Your task to perform on an android device: turn on airplane mode Image 0: 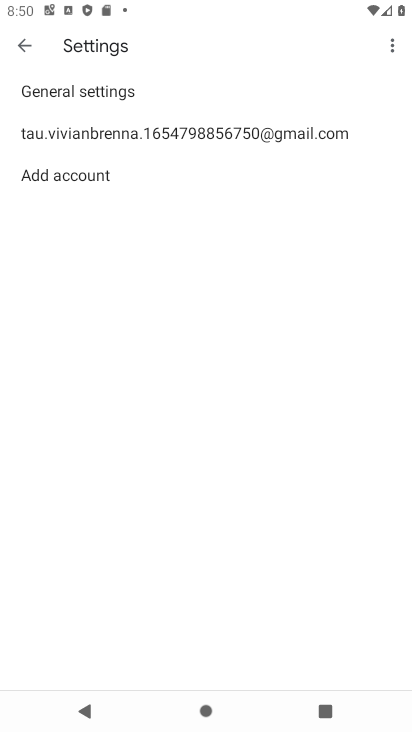
Step 0: press home button
Your task to perform on an android device: turn on airplane mode Image 1: 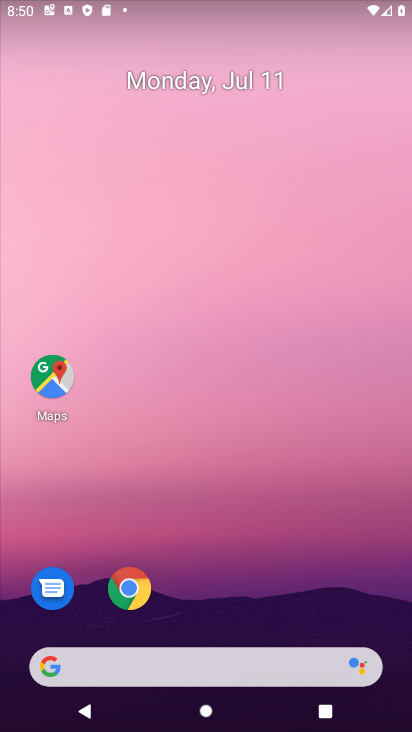
Step 1: drag from (396, 624) to (313, 144)
Your task to perform on an android device: turn on airplane mode Image 2: 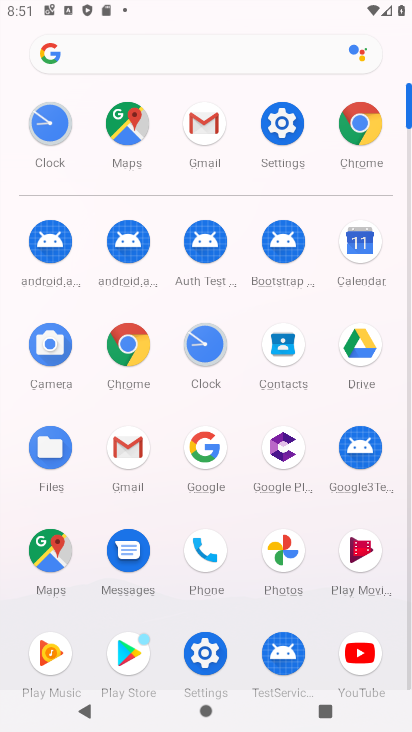
Step 2: drag from (312, 6) to (337, 383)
Your task to perform on an android device: turn on airplane mode Image 3: 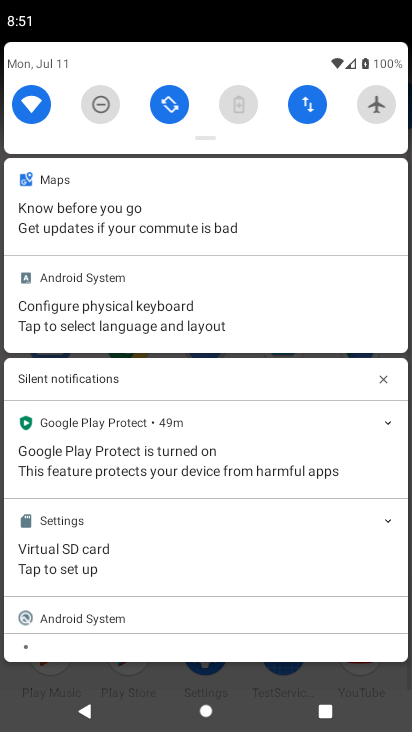
Step 3: click (372, 98)
Your task to perform on an android device: turn on airplane mode Image 4: 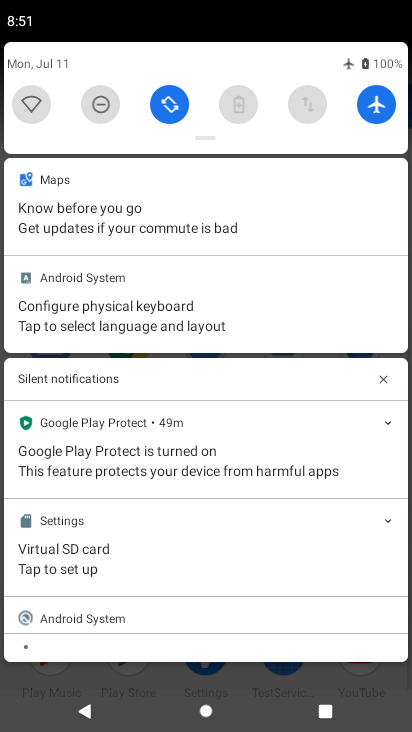
Step 4: task complete